Your task to perform on an android device: Find coffee shops on Maps Image 0: 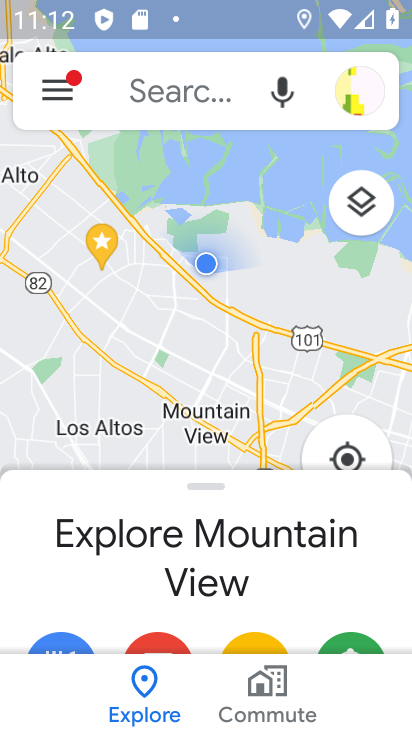
Step 0: click (187, 89)
Your task to perform on an android device: Find coffee shops on Maps Image 1: 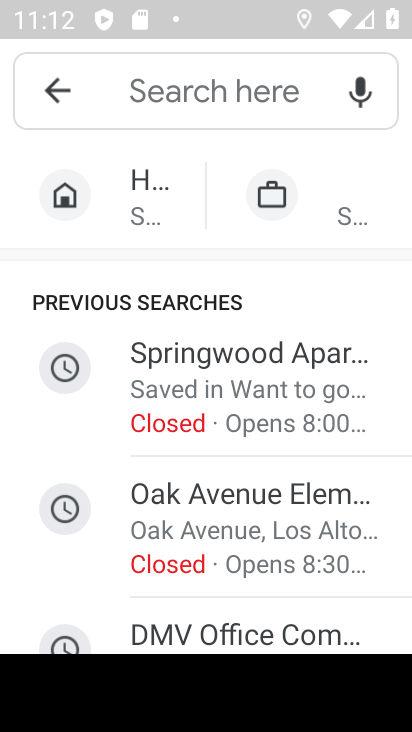
Step 1: type "coffee shops"
Your task to perform on an android device: Find coffee shops on Maps Image 2: 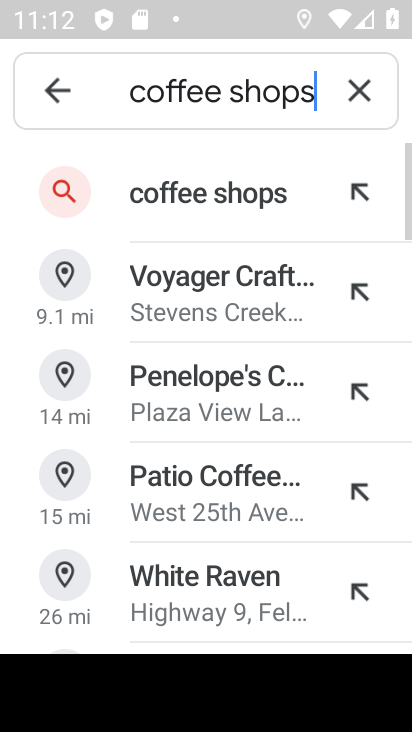
Step 2: click (262, 197)
Your task to perform on an android device: Find coffee shops on Maps Image 3: 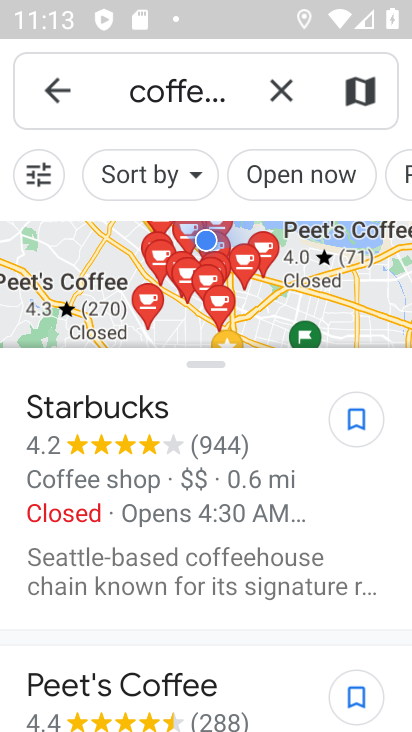
Step 3: task complete